Your task to perform on an android device: What's the weather going to be this weekend? Image 0: 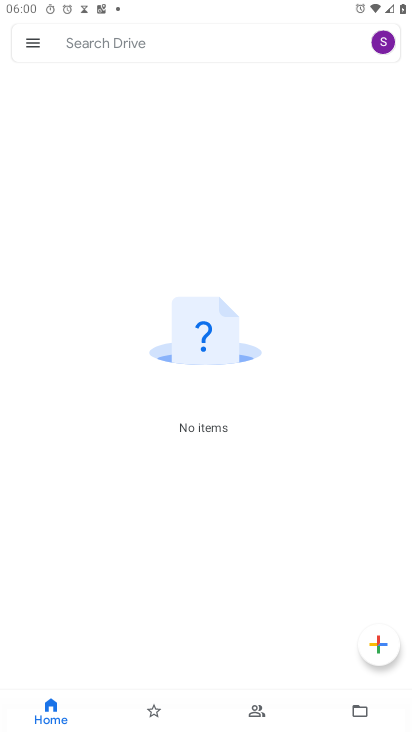
Step 0: press home button
Your task to perform on an android device: What's the weather going to be this weekend? Image 1: 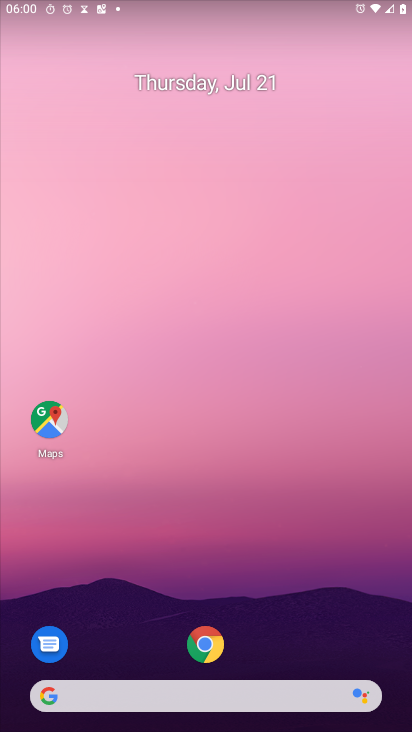
Step 1: click (44, 692)
Your task to perform on an android device: What's the weather going to be this weekend? Image 2: 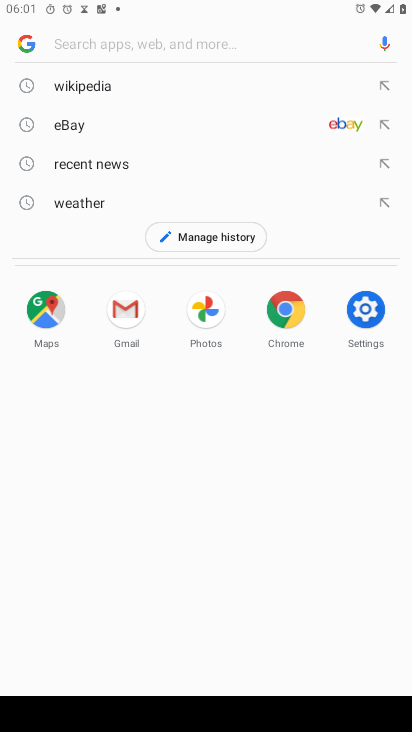
Step 2: type "What's the weather going to be this weekend?"
Your task to perform on an android device: What's the weather going to be this weekend? Image 3: 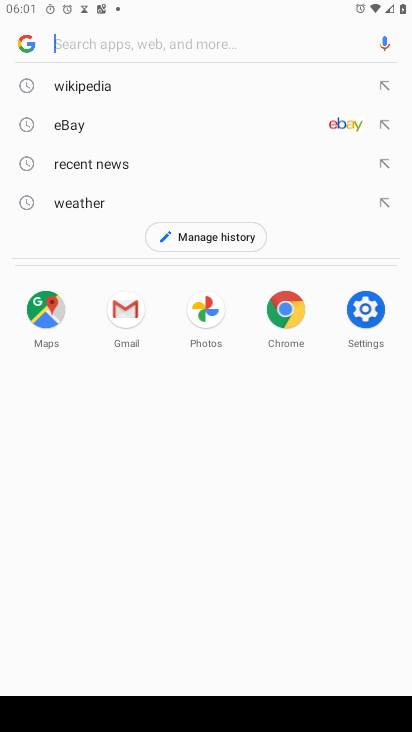
Step 3: click (133, 44)
Your task to perform on an android device: What's the weather going to be this weekend? Image 4: 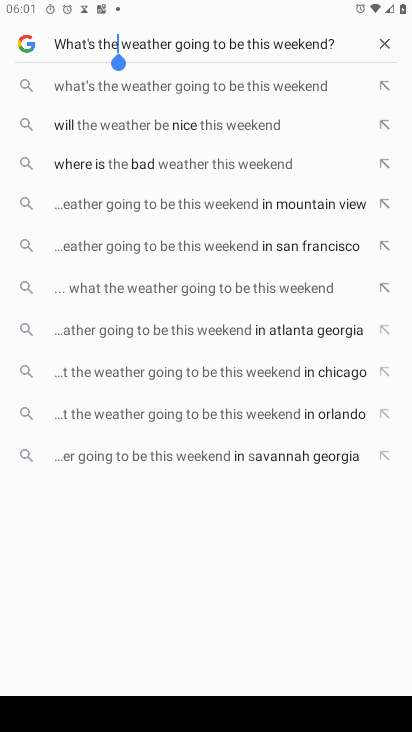
Step 4: press enter
Your task to perform on an android device: What's the weather going to be this weekend? Image 5: 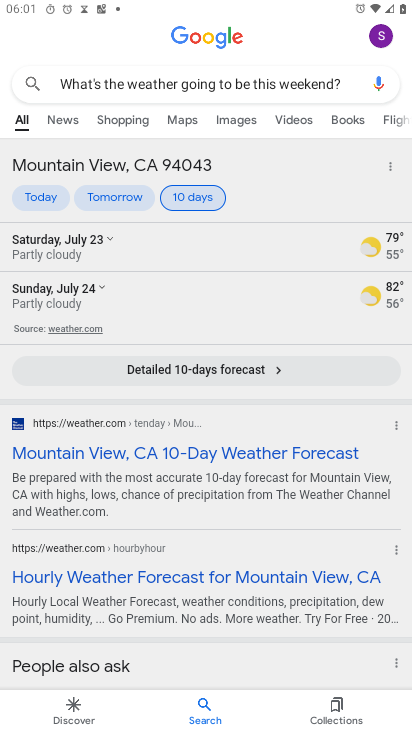
Step 5: task complete